Your task to perform on an android device: turn off location history Image 0: 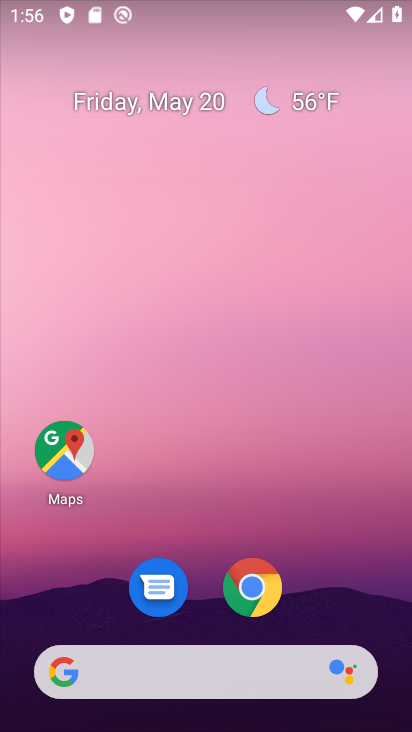
Step 0: drag from (351, 530) to (406, 41)
Your task to perform on an android device: turn off location history Image 1: 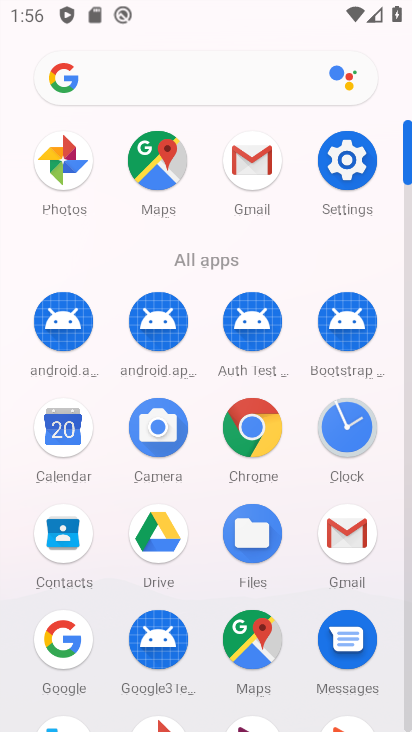
Step 1: click (356, 152)
Your task to perform on an android device: turn off location history Image 2: 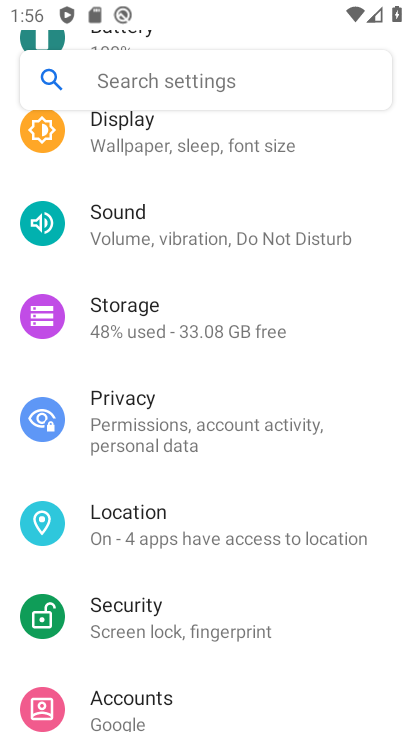
Step 2: click (234, 540)
Your task to perform on an android device: turn off location history Image 3: 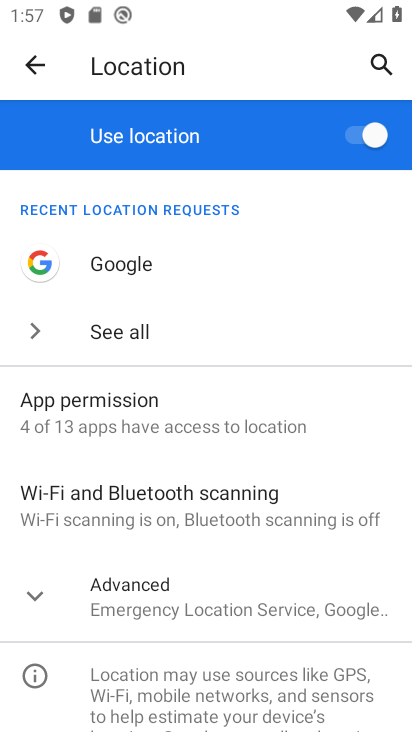
Step 3: click (162, 588)
Your task to perform on an android device: turn off location history Image 4: 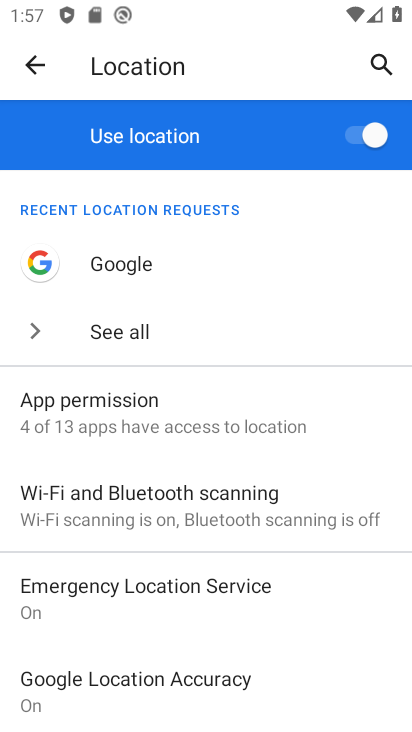
Step 4: drag from (220, 602) to (269, 453)
Your task to perform on an android device: turn off location history Image 5: 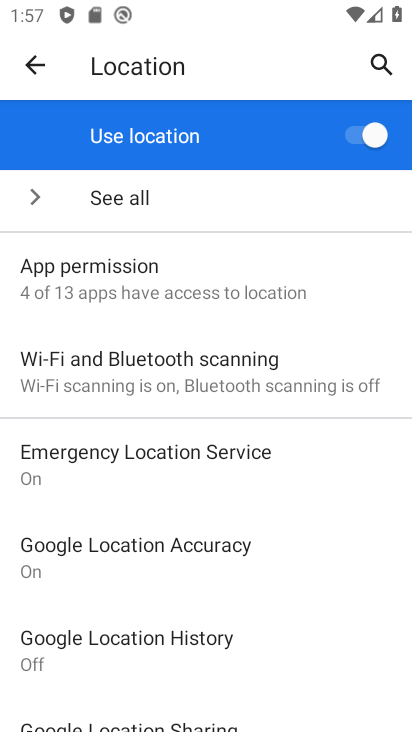
Step 5: click (207, 632)
Your task to perform on an android device: turn off location history Image 6: 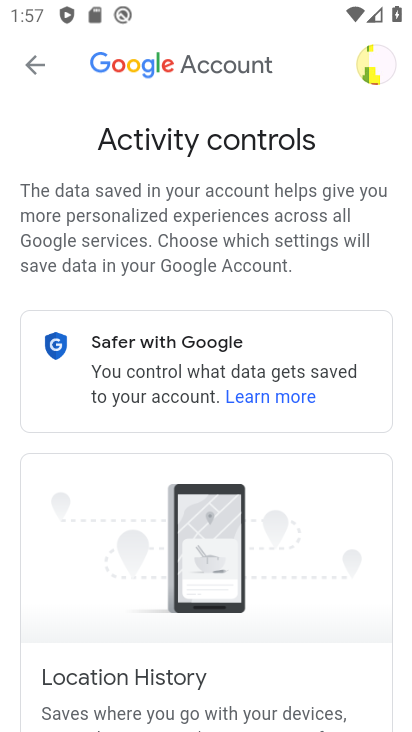
Step 6: task complete